Your task to perform on an android device: change notification settings in the gmail app Image 0: 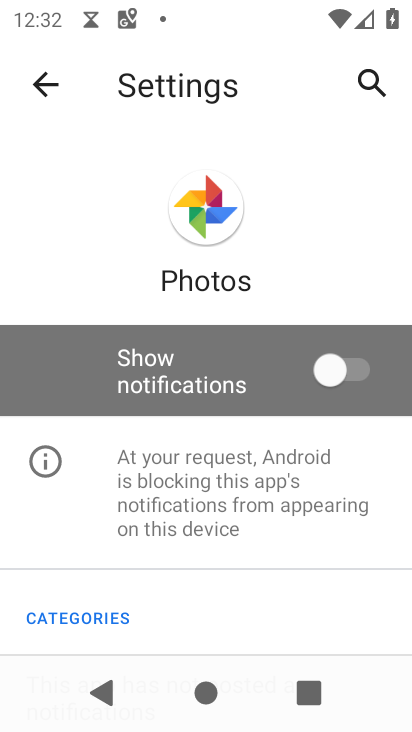
Step 0: press home button
Your task to perform on an android device: change notification settings in the gmail app Image 1: 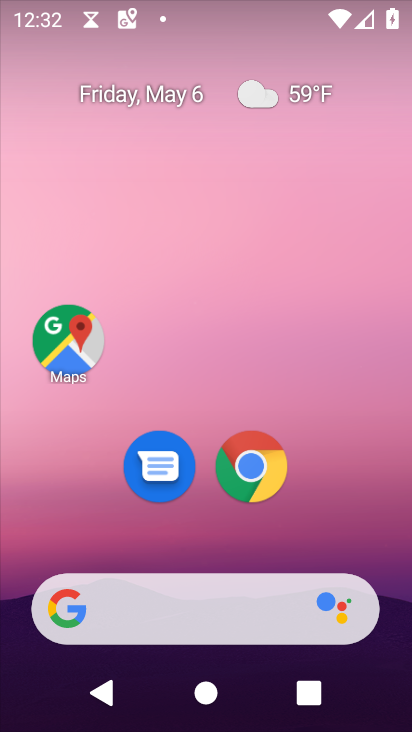
Step 1: drag from (366, 523) to (309, 184)
Your task to perform on an android device: change notification settings in the gmail app Image 2: 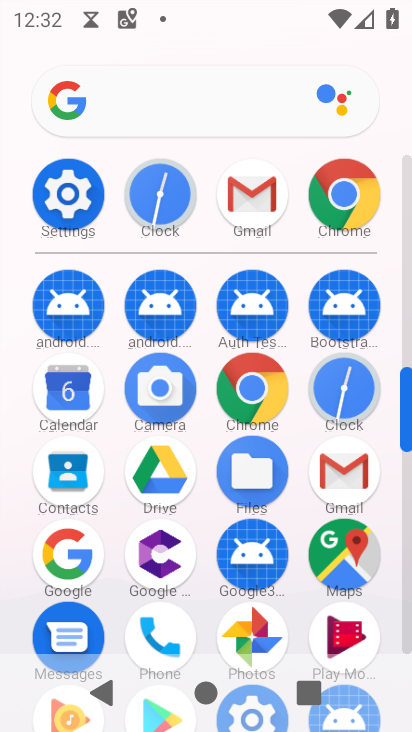
Step 2: click (255, 212)
Your task to perform on an android device: change notification settings in the gmail app Image 3: 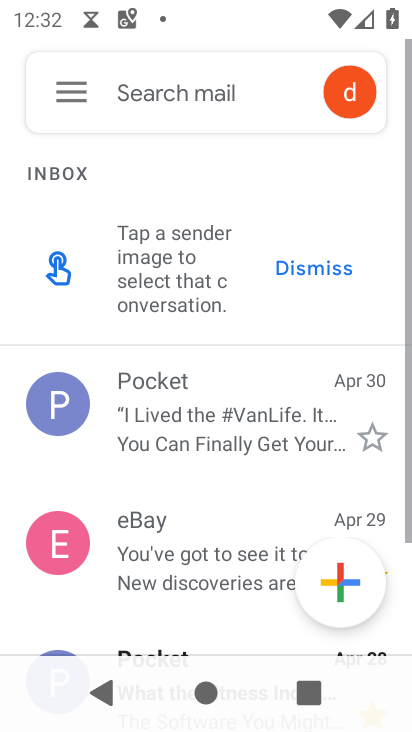
Step 3: click (78, 90)
Your task to perform on an android device: change notification settings in the gmail app Image 4: 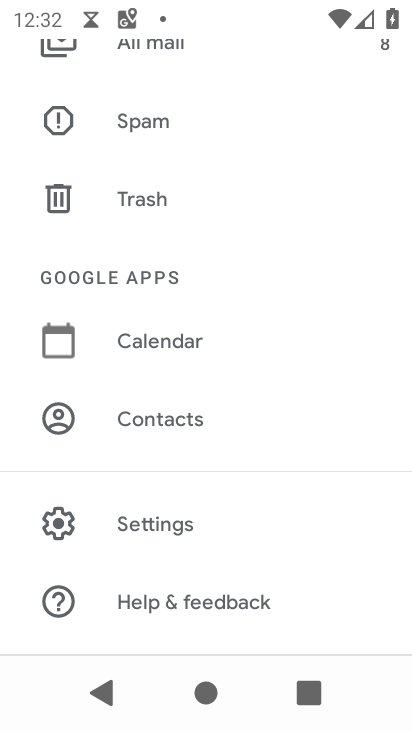
Step 4: click (225, 523)
Your task to perform on an android device: change notification settings in the gmail app Image 5: 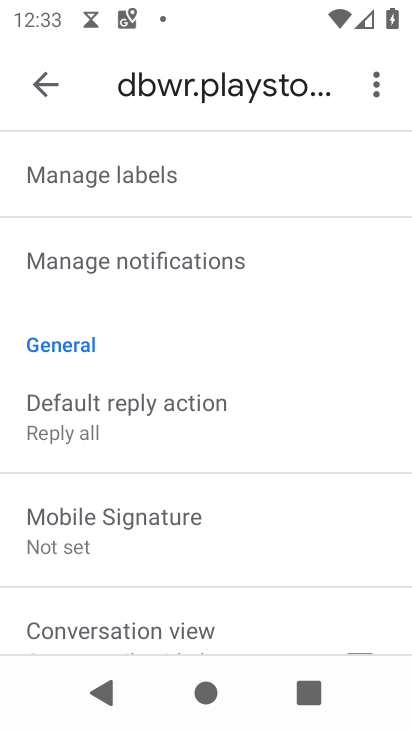
Step 5: drag from (230, 564) to (252, 146)
Your task to perform on an android device: change notification settings in the gmail app Image 6: 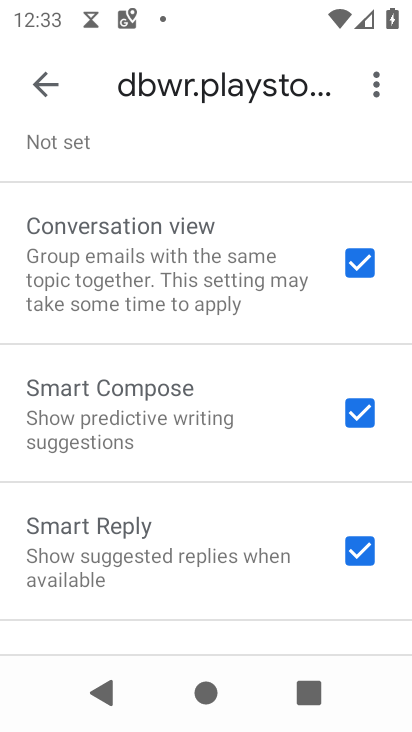
Step 6: drag from (252, 146) to (248, 642)
Your task to perform on an android device: change notification settings in the gmail app Image 7: 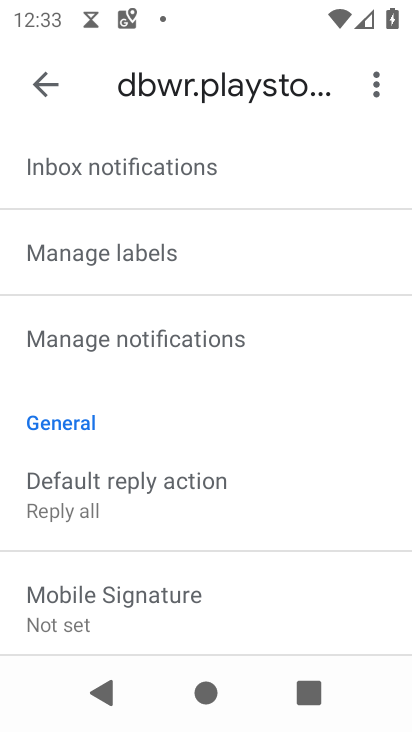
Step 7: click (212, 362)
Your task to perform on an android device: change notification settings in the gmail app Image 8: 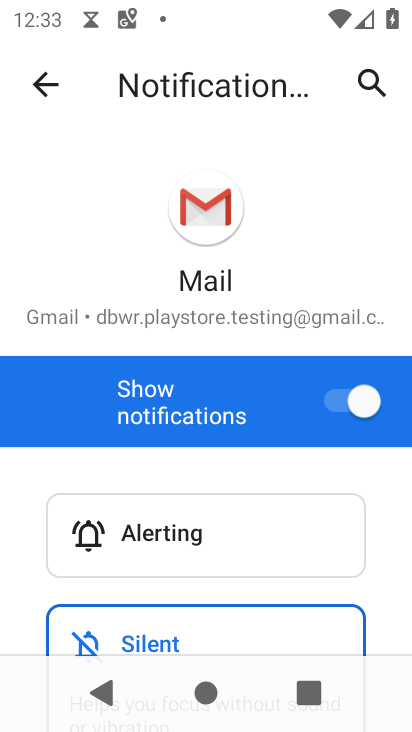
Step 8: drag from (385, 543) to (295, 274)
Your task to perform on an android device: change notification settings in the gmail app Image 9: 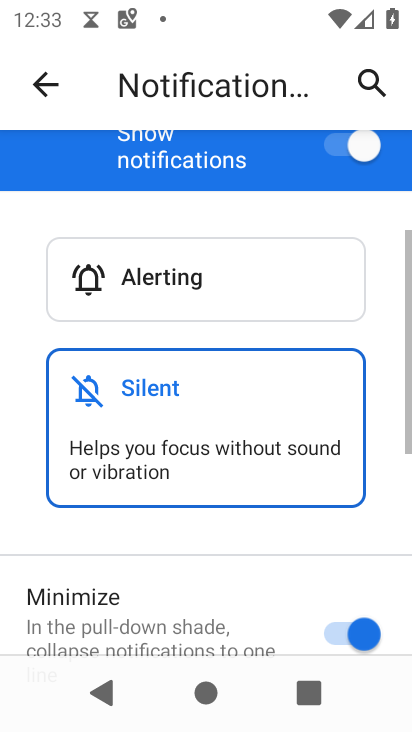
Step 9: click (295, 274)
Your task to perform on an android device: change notification settings in the gmail app Image 10: 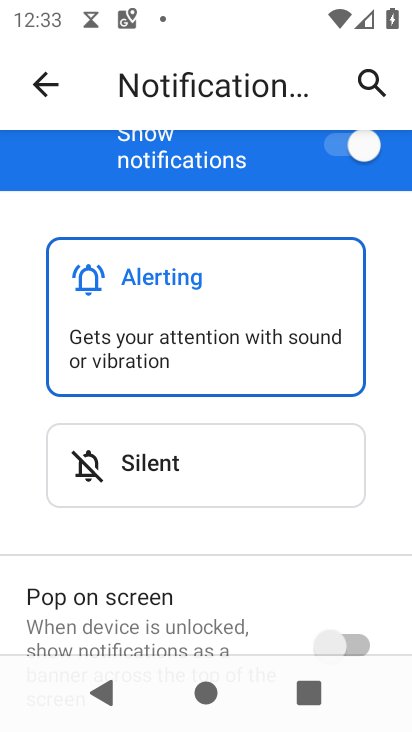
Step 10: click (361, 630)
Your task to perform on an android device: change notification settings in the gmail app Image 11: 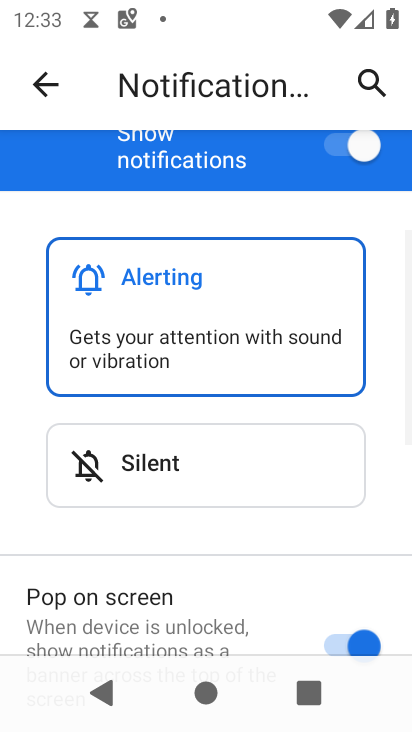
Step 11: task complete